Your task to perform on an android device: see creations saved in the google photos Image 0: 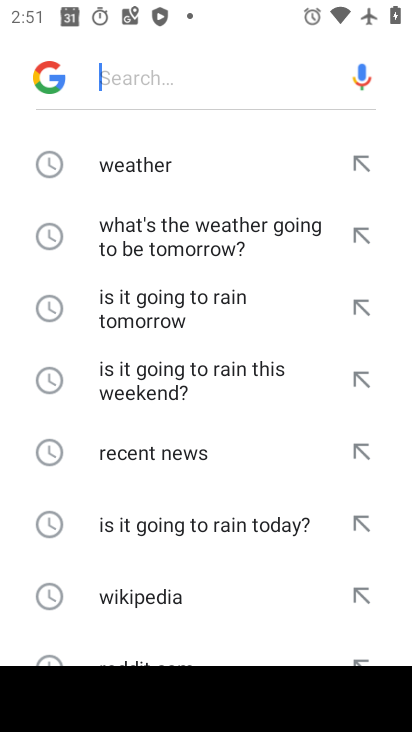
Step 0: press home button
Your task to perform on an android device: see creations saved in the google photos Image 1: 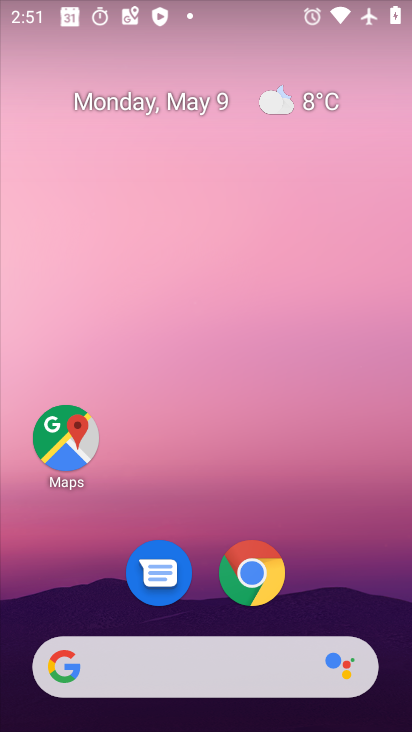
Step 1: drag from (151, 655) to (296, 232)
Your task to perform on an android device: see creations saved in the google photos Image 2: 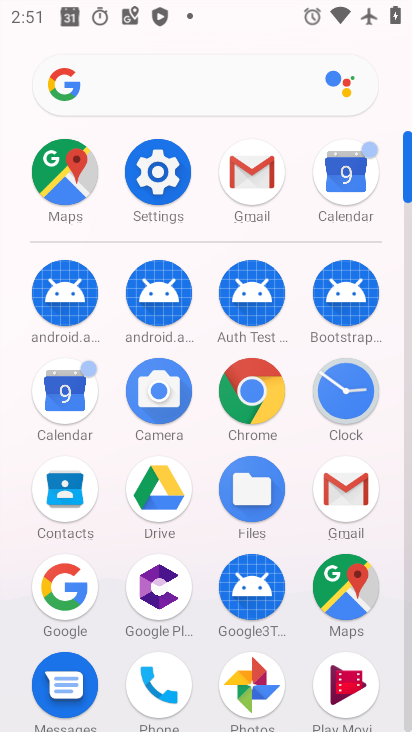
Step 2: click (250, 687)
Your task to perform on an android device: see creations saved in the google photos Image 3: 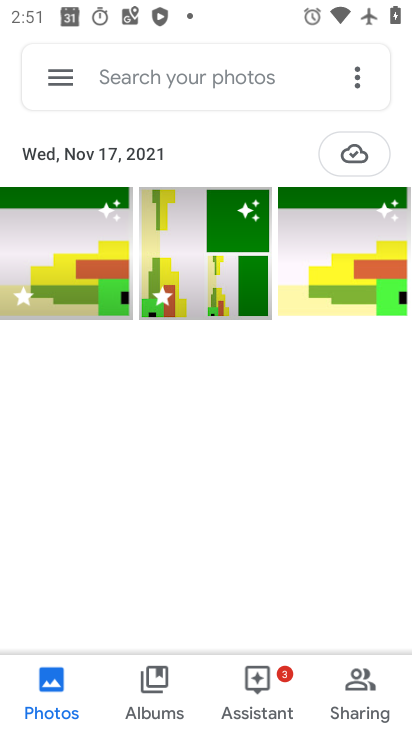
Step 3: click (151, 697)
Your task to perform on an android device: see creations saved in the google photos Image 4: 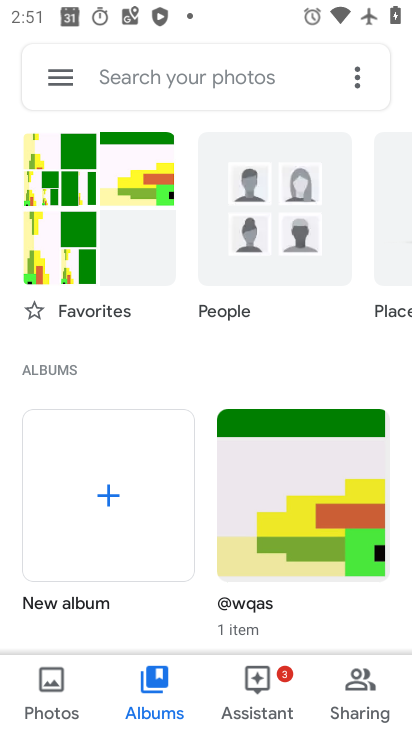
Step 4: click (162, 72)
Your task to perform on an android device: see creations saved in the google photos Image 5: 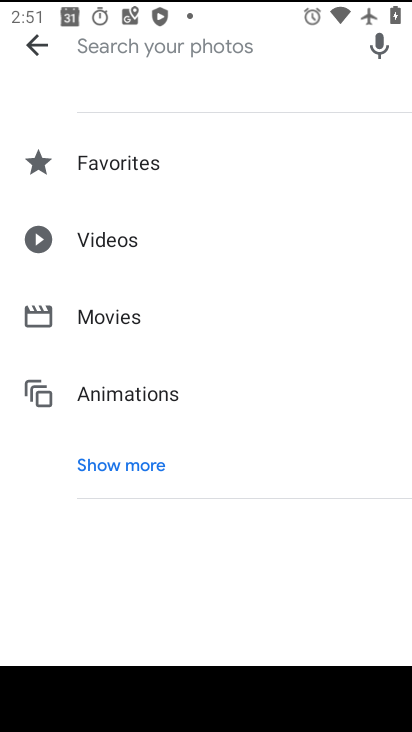
Step 5: click (147, 463)
Your task to perform on an android device: see creations saved in the google photos Image 6: 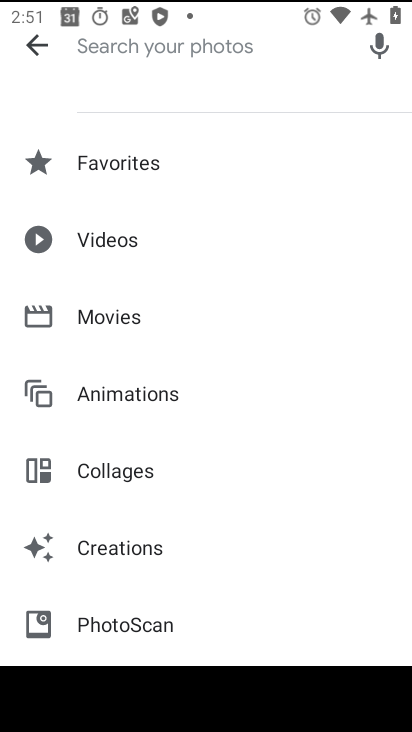
Step 6: click (118, 553)
Your task to perform on an android device: see creations saved in the google photos Image 7: 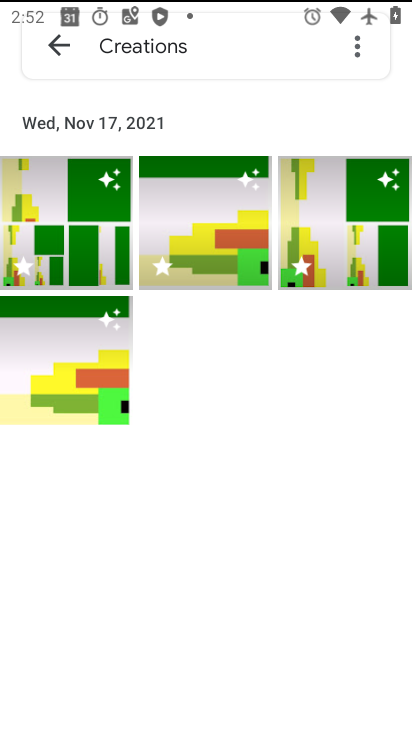
Step 7: task complete